Your task to perform on an android device: turn off sleep mode Image 0: 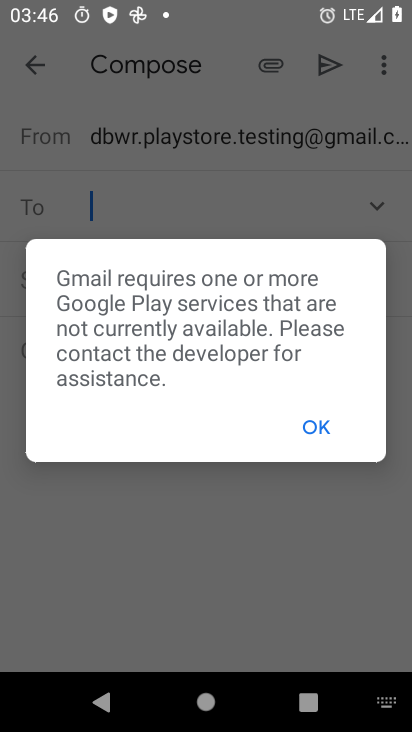
Step 0: press home button
Your task to perform on an android device: turn off sleep mode Image 1: 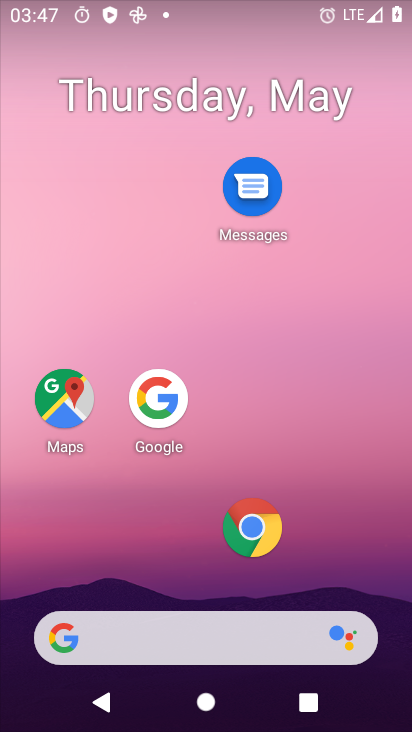
Step 1: drag from (223, 600) to (251, 140)
Your task to perform on an android device: turn off sleep mode Image 2: 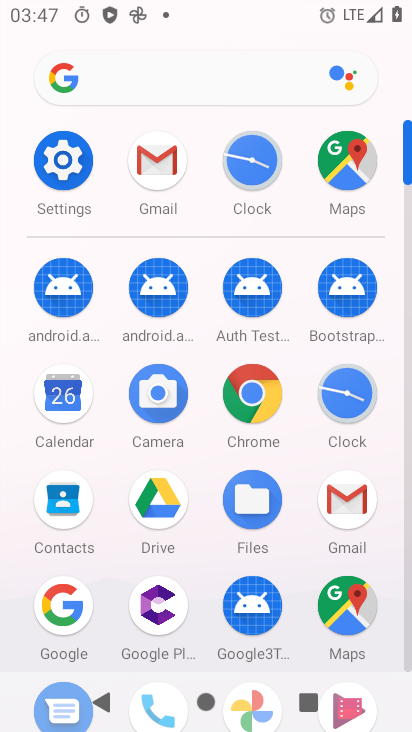
Step 2: click (63, 165)
Your task to perform on an android device: turn off sleep mode Image 3: 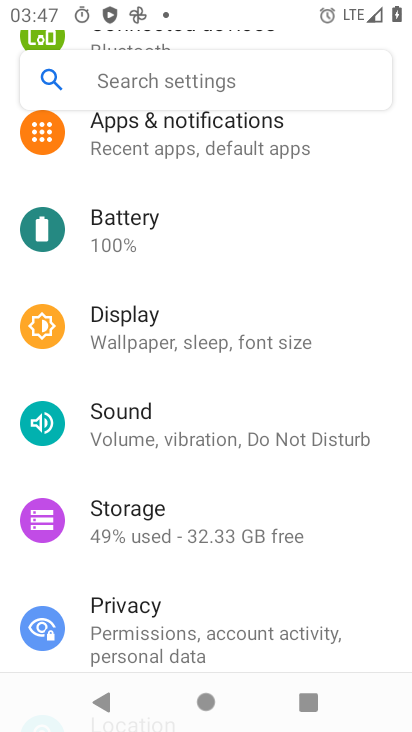
Step 3: click (169, 338)
Your task to perform on an android device: turn off sleep mode Image 4: 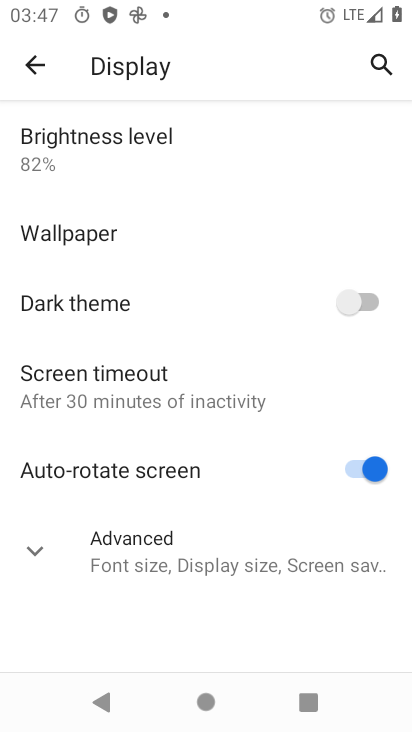
Step 4: click (177, 392)
Your task to perform on an android device: turn off sleep mode Image 5: 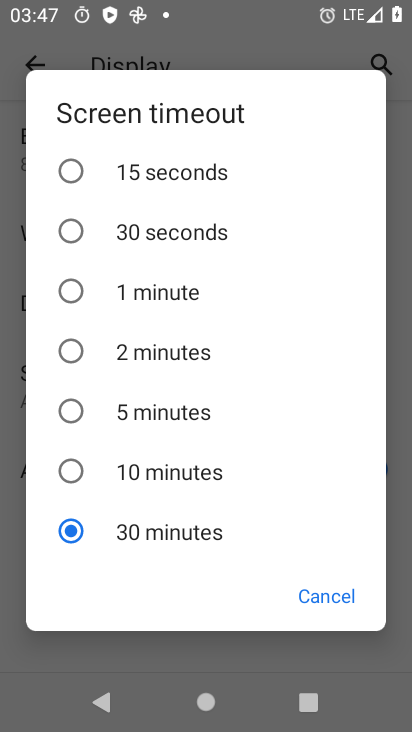
Step 5: task complete